Your task to perform on an android device: Check the weather Image 0: 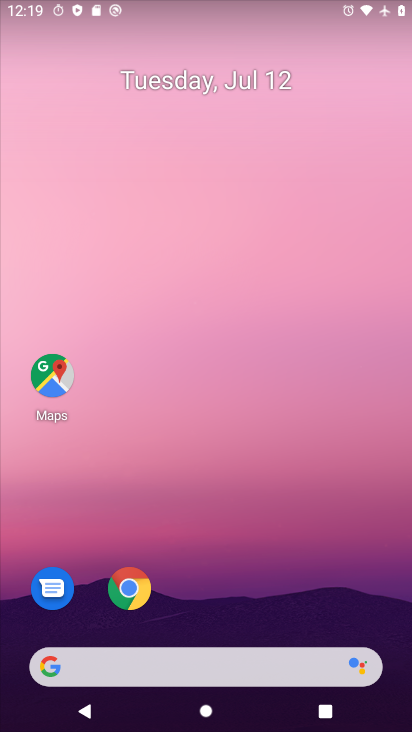
Step 0: click (178, 668)
Your task to perform on an android device: Check the weather Image 1: 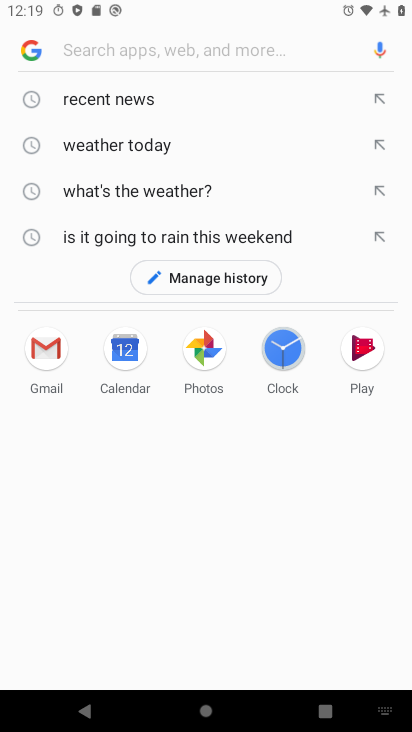
Step 1: click (133, 190)
Your task to perform on an android device: Check the weather Image 2: 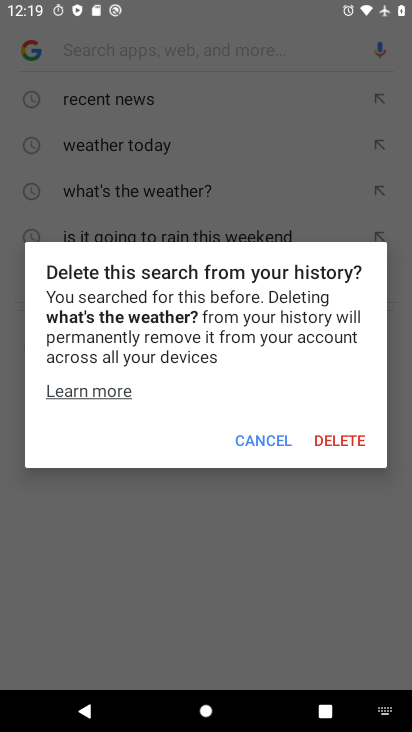
Step 2: click (153, 689)
Your task to perform on an android device: Check the weather Image 3: 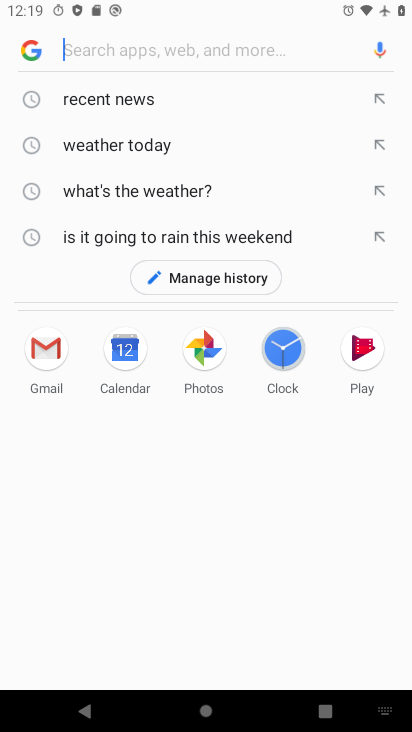
Step 3: click (133, 184)
Your task to perform on an android device: Check the weather Image 4: 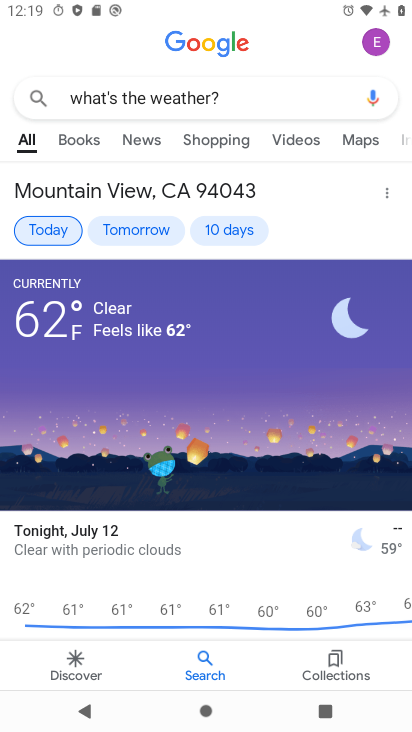
Step 4: task complete